Your task to perform on an android device: change notification settings in the gmail app Image 0: 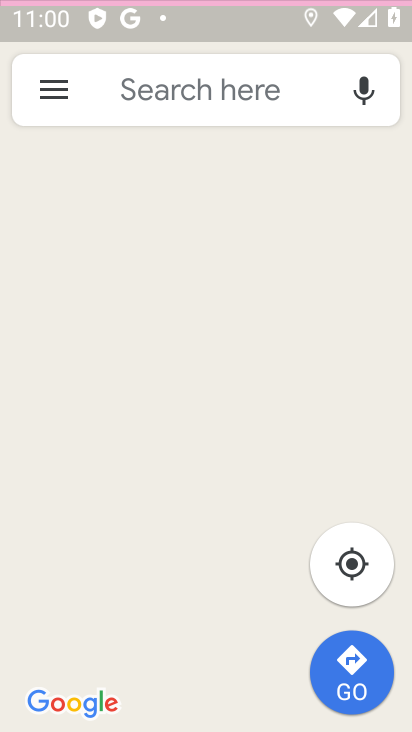
Step 0: press home button
Your task to perform on an android device: change notification settings in the gmail app Image 1: 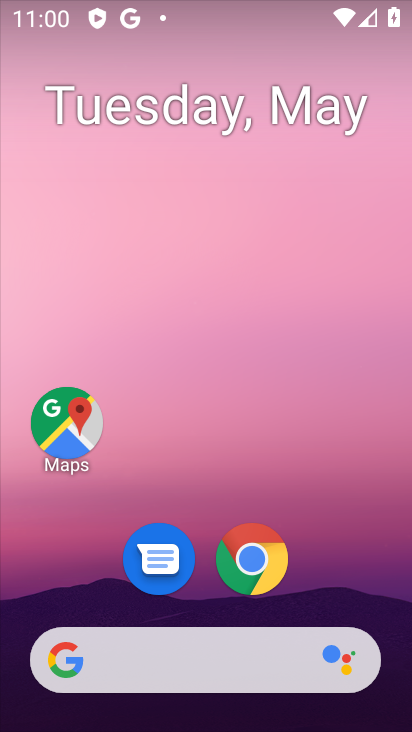
Step 1: drag from (327, 550) to (73, 1)
Your task to perform on an android device: change notification settings in the gmail app Image 2: 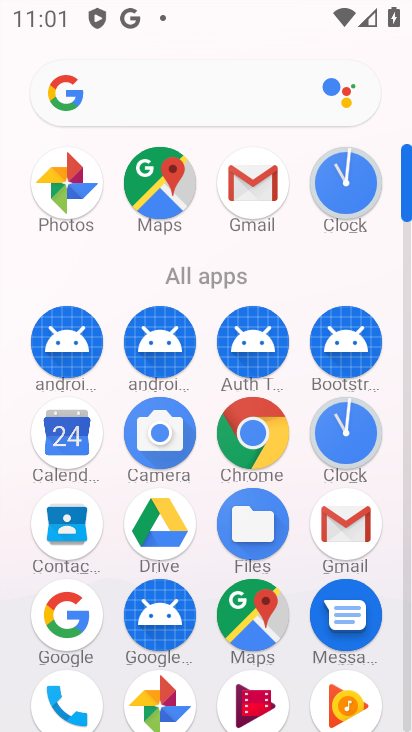
Step 2: click (280, 195)
Your task to perform on an android device: change notification settings in the gmail app Image 3: 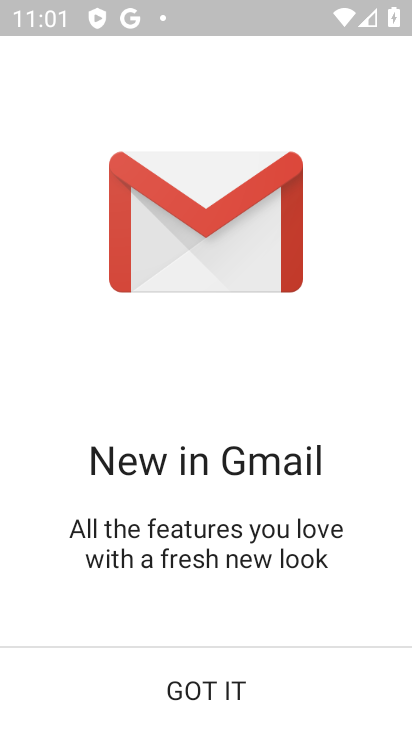
Step 3: click (217, 699)
Your task to perform on an android device: change notification settings in the gmail app Image 4: 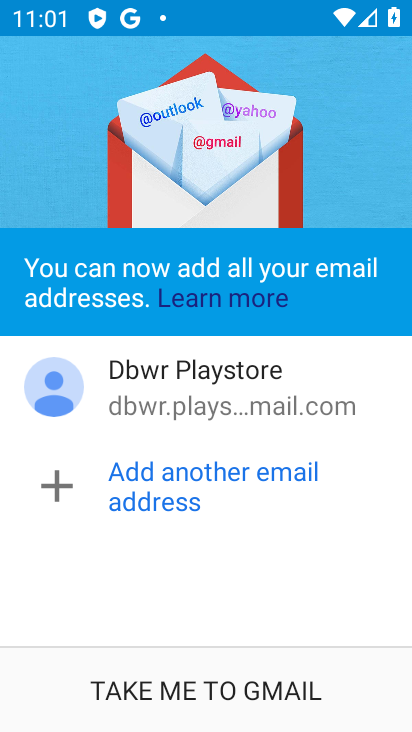
Step 4: click (266, 693)
Your task to perform on an android device: change notification settings in the gmail app Image 5: 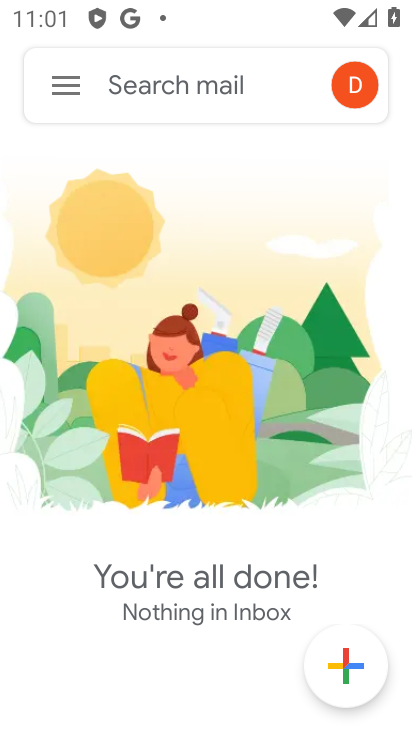
Step 5: click (75, 100)
Your task to perform on an android device: change notification settings in the gmail app Image 6: 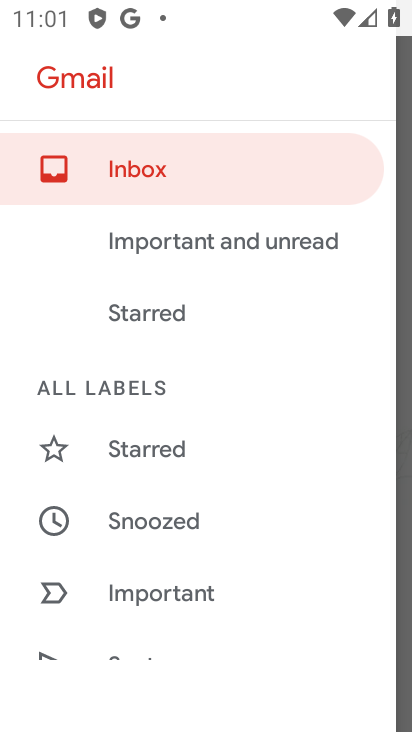
Step 6: drag from (166, 327) to (184, 76)
Your task to perform on an android device: change notification settings in the gmail app Image 7: 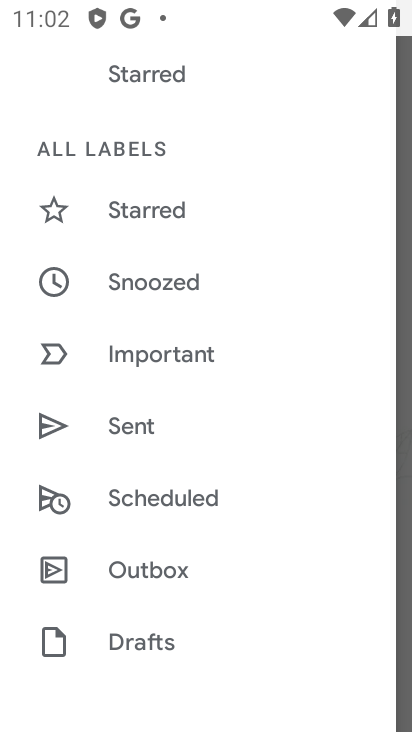
Step 7: drag from (210, 314) to (234, 137)
Your task to perform on an android device: change notification settings in the gmail app Image 8: 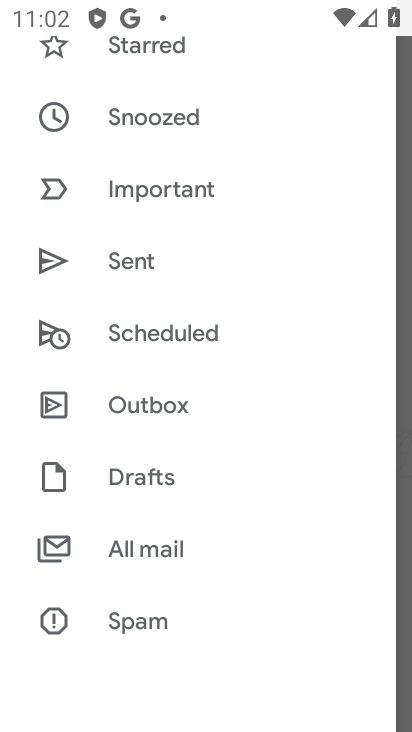
Step 8: drag from (168, 610) to (263, 137)
Your task to perform on an android device: change notification settings in the gmail app Image 9: 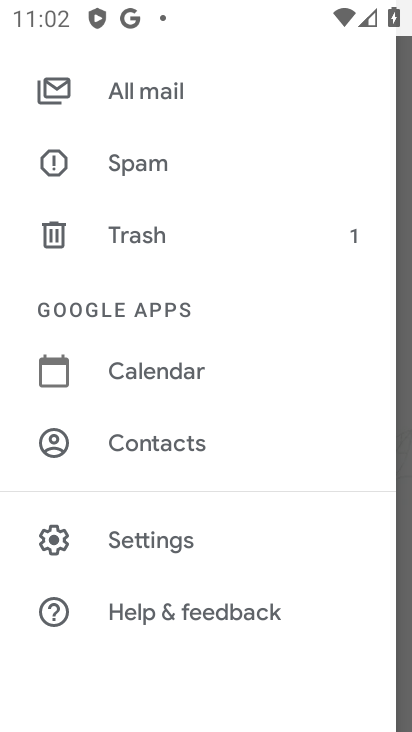
Step 9: click (166, 561)
Your task to perform on an android device: change notification settings in the gmail app Image 10: 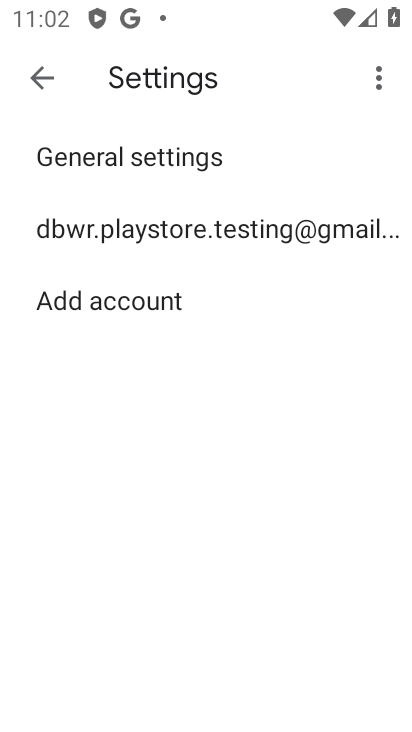
Step 10: click (189, 217)
Your task to perform on an android device: change notification settings in the gmail app Image 11: 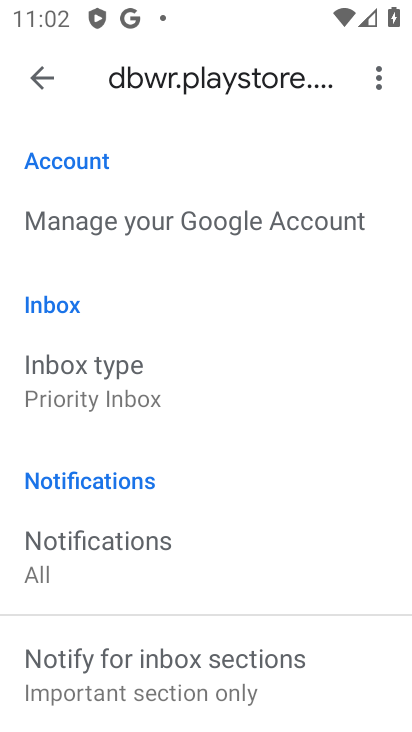
Step 11: click (99, 564)
Your task to perform on an android device: change notification settings in the gmail app Image 12: 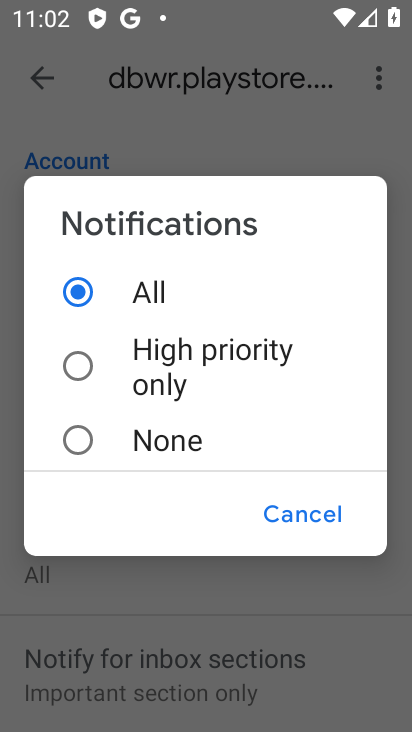
Step 12: click (83, 362)
Your task to perform on an android device: change notification settings in the gmail app Image 13: 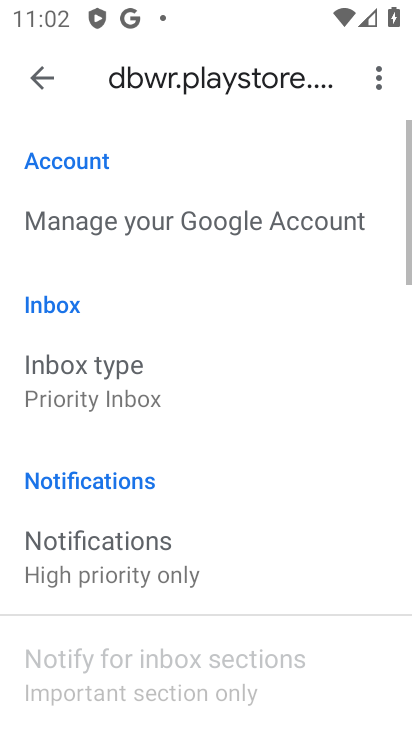
Step 13: task complete